Your task to perform on an android device: When is my next meeting? Image 0: 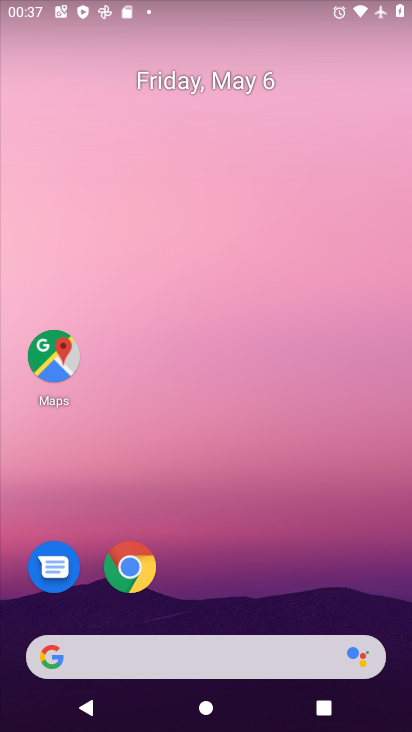
Step 0: drag from (237, 590) to (278, 143)
Your task to perform on an android device: When is my next meeting? Image 1: 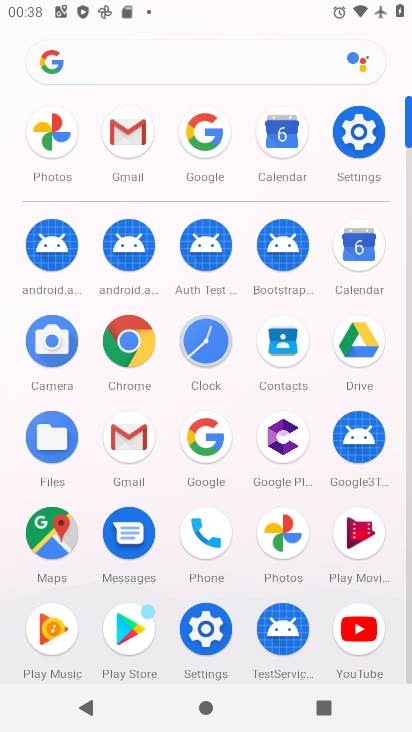
Step 1: click (359, 236)
Your task to perform on an android device: When is my next meeting? Image 2: 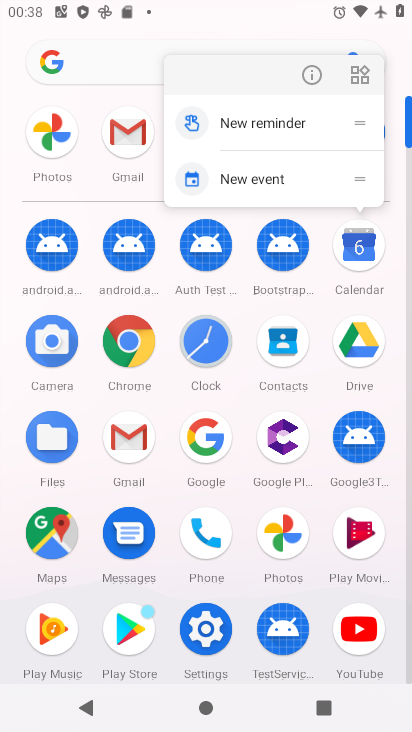
Step 2: click (363, 265)
Your task to perform on an android device: When is my next meeting? Image 3: 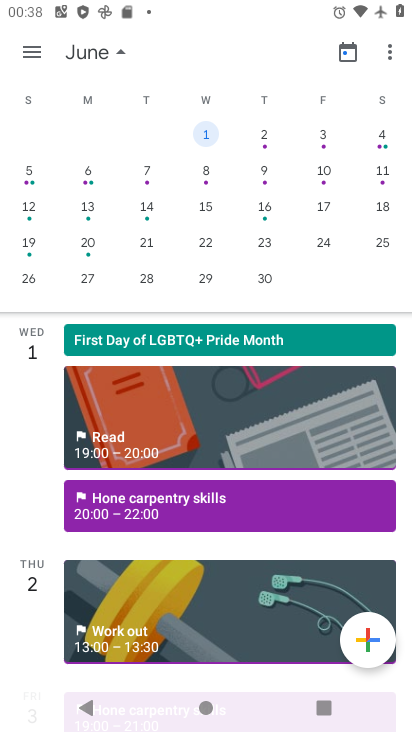
Step 3: click (264, 137)
Your task to perform on an android device: When is my next meeting? Image 4: 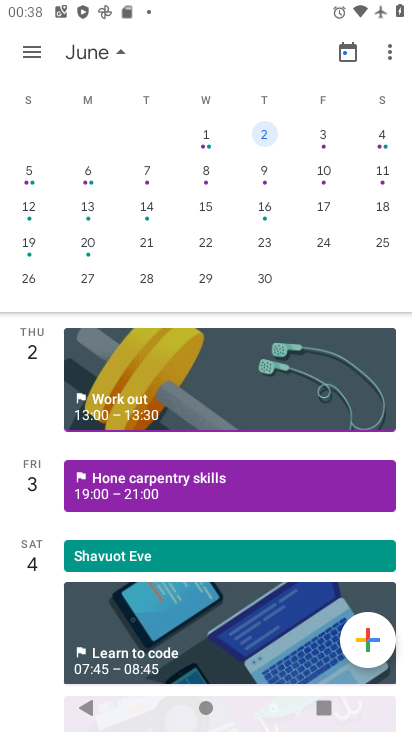
Step 4: drag from (86, 184) to (381, 208)
Your task to perform on an android device: When is my next meeting? Image 5: 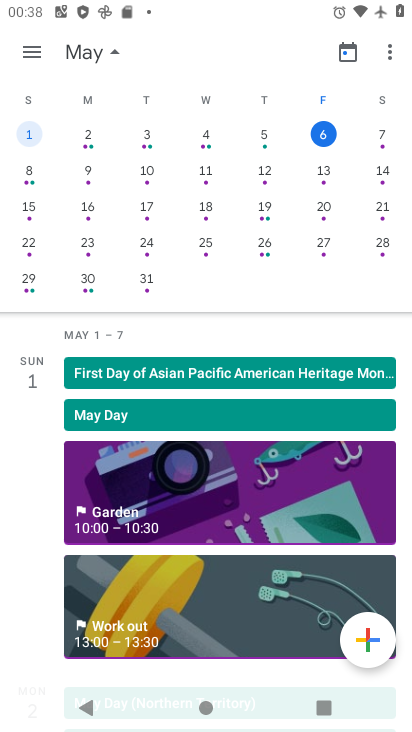
Step 5: click (387, 129)
Your task to perform on an android device: When is my next meeting? Image 6: 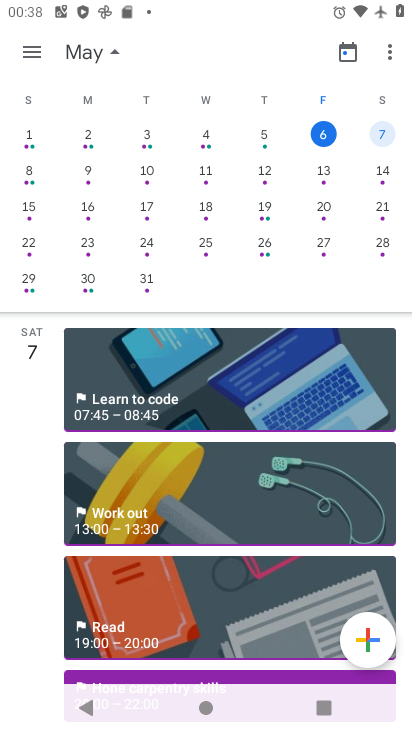
Step 6: click (20, 188)
Your task to perform on an android device: When is my next meeting? Image 7: 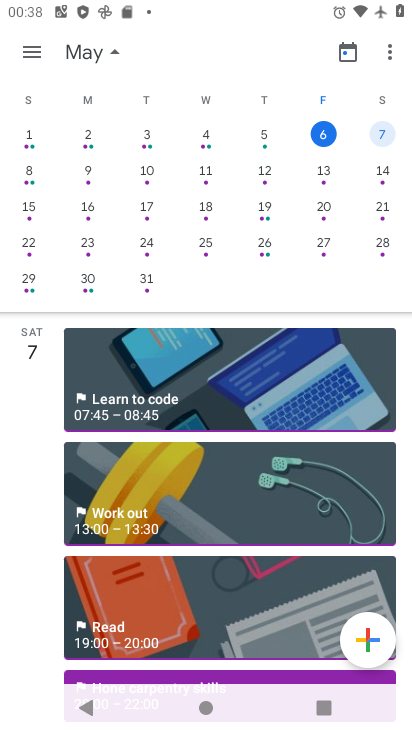
Step 7: click (25, 180)
Your task to perform on an android device: When is my next meeting? Image 8: 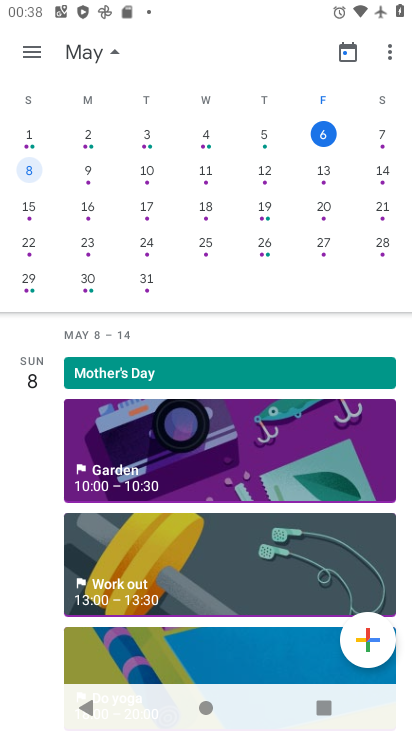
Step 8: drag from (239, 548) to (259, 392)
Your task to perform on an android device: When is my next meeting? Image 9: 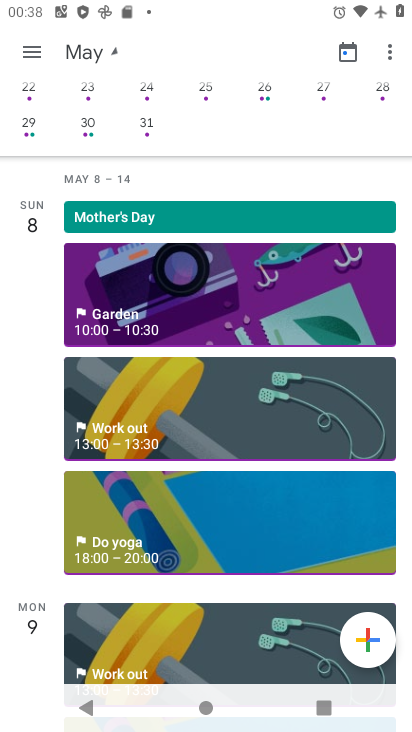
Step 9: drag from (267, 548) to (241, 599)
Your task to perform on an android device: When is my next meeting? Image 10: 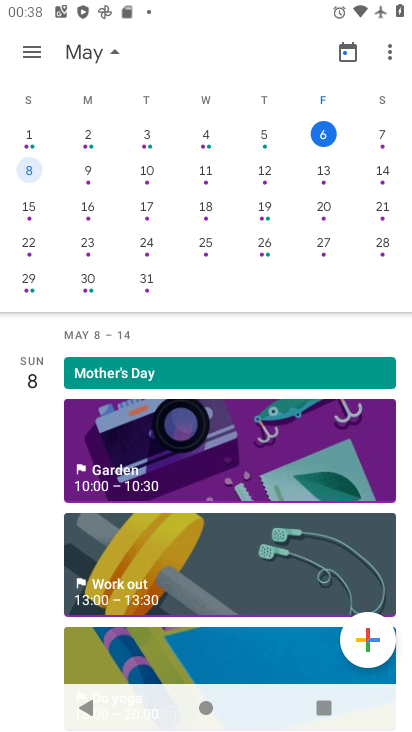
Step 10: click (88, 179)
Your task to perform on an android device: When is my next meeting? Image 11: 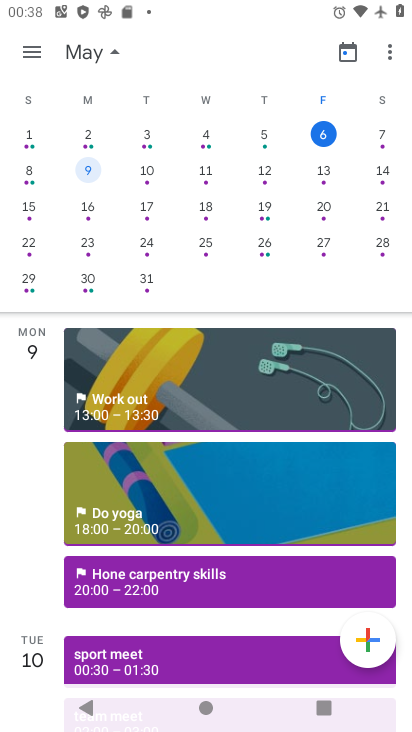
Step 11: click (137, 176)
Your task to perform on an android device: When is my next meeting? Image 12: 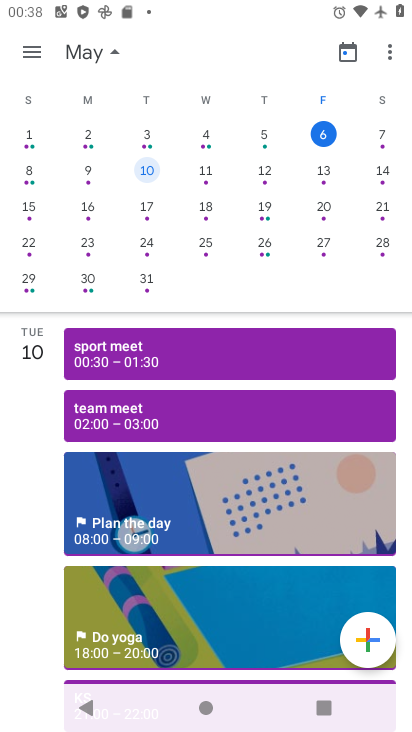
Step 12: drag from (186, 568) to (196, 530)
Your task to perform on an android device: When is my next meeting? Image 13: 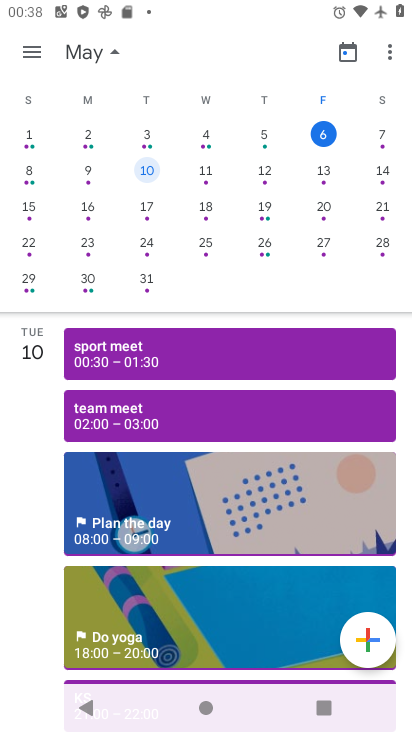
Step 13: click (142, 377)
Your task to perform on an android device: When is my next meeting? Image 14: 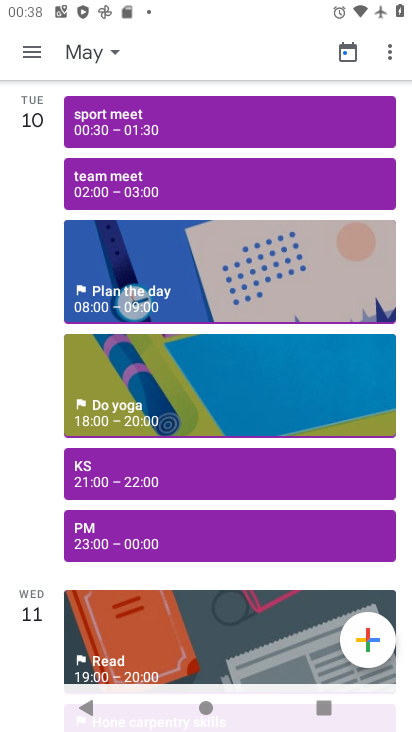
Step 14: click (230, 186)
Your task to perform on an android device: When is my next meeting? Image 15: 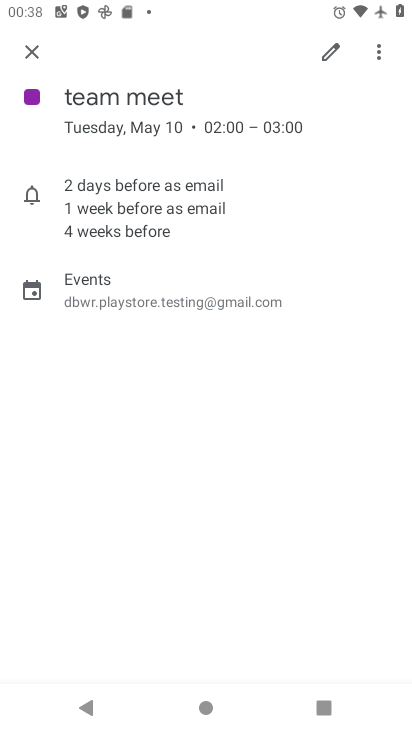
Step 15: task complete